Your task to perform on an android device: toggle location history Image 0: 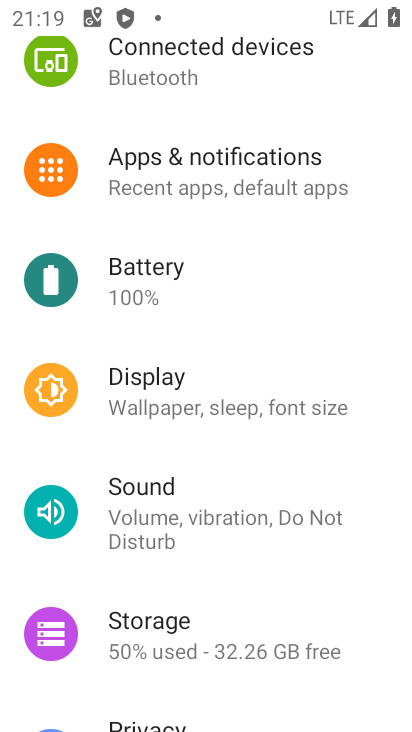
Step 0: press home button
Your task to perform on an android device: toggle location history Image 1: 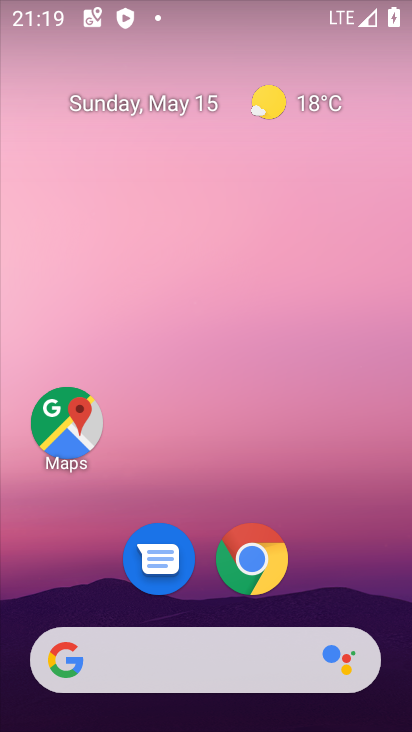
Step 1: drag from (307, 512) to (188, 141)
Your task to perform on an android device: toggle location history Image 2: 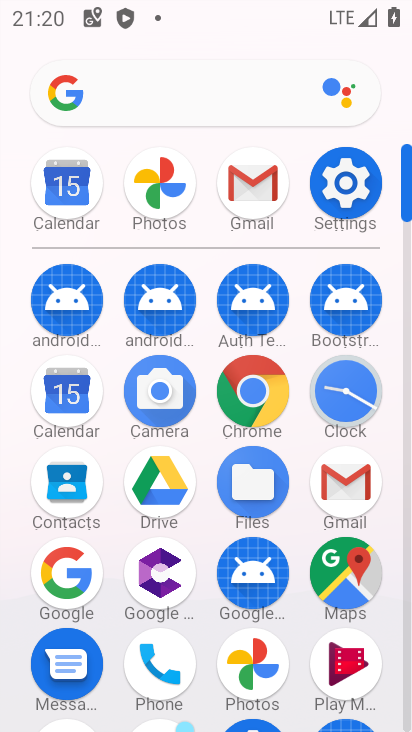
Step 2: click (338, 190)
Your task to perform on an android device: toggle location history Image 3: 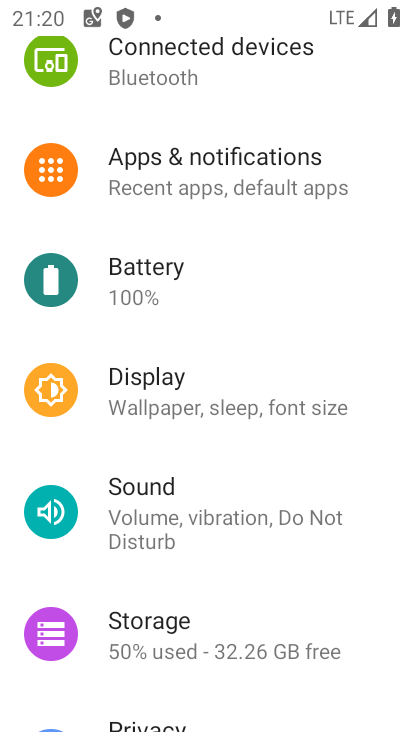
Step 3: drag from (214, 542) to (83, 151)
Your task to perform on an android device: toggle location history Image 4: 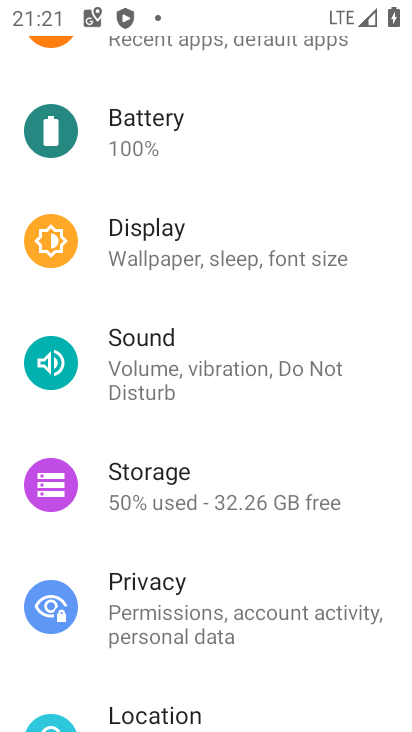
Step 4: drag from (217, 538) to (180, 267)
Your task to perform on an android device: toggle location history Image 5: 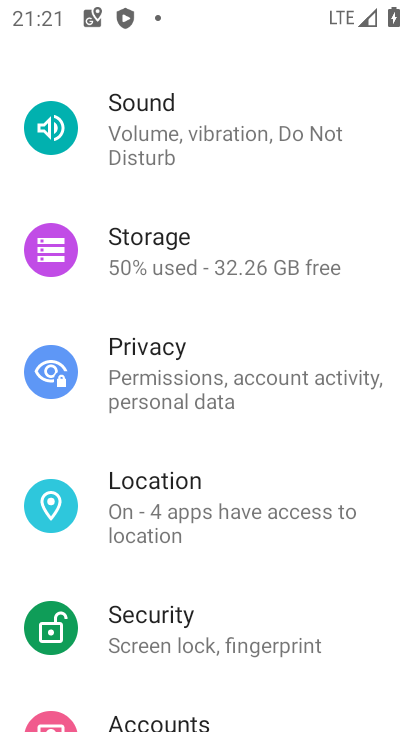
Step 5: click (141, 486)
Your task to perform on an android device: toggle location history Image 6: 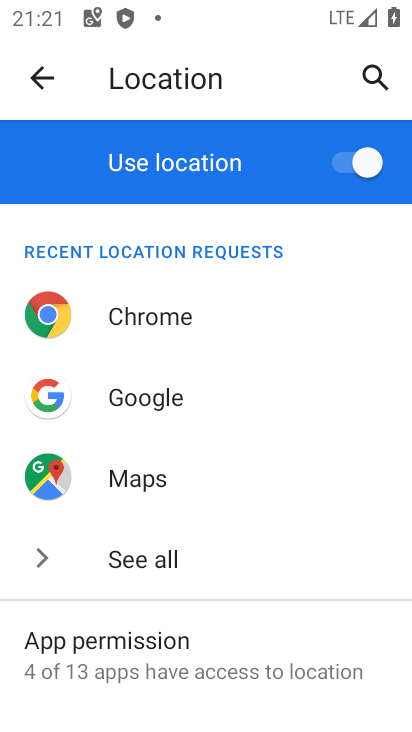
Step 6: drag from (173, 603) to (151, 299)
Your task to perform on an android device: toggle location history Image 7: 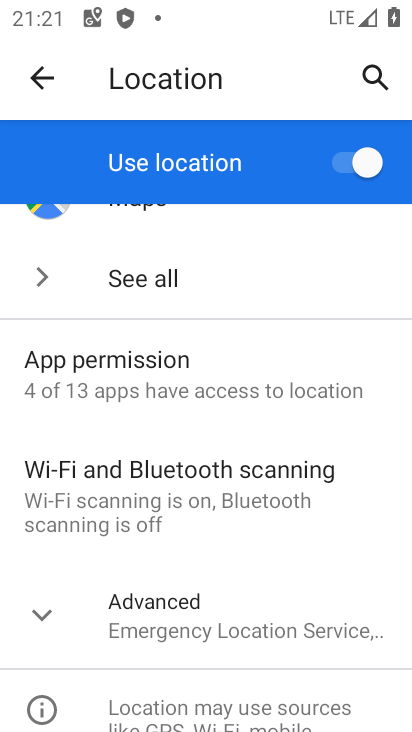
Step 7: click (41, 615)
Your task to perform on an android device: toggle location history Image 8: 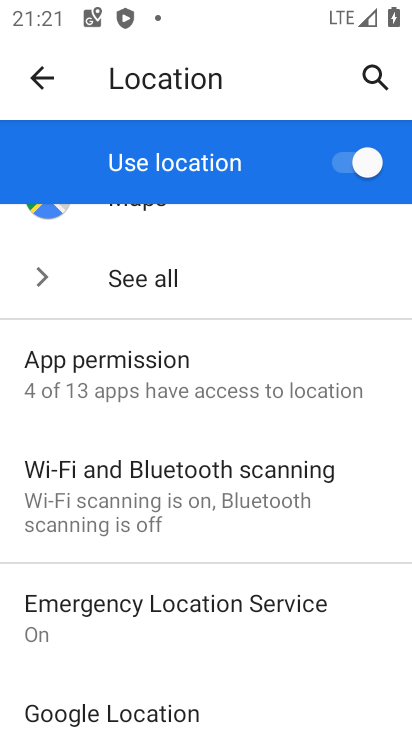
Step 8: drag from (159, 615) to (128, 245)
Your task to perform on an android device: toggle location history Image 9: 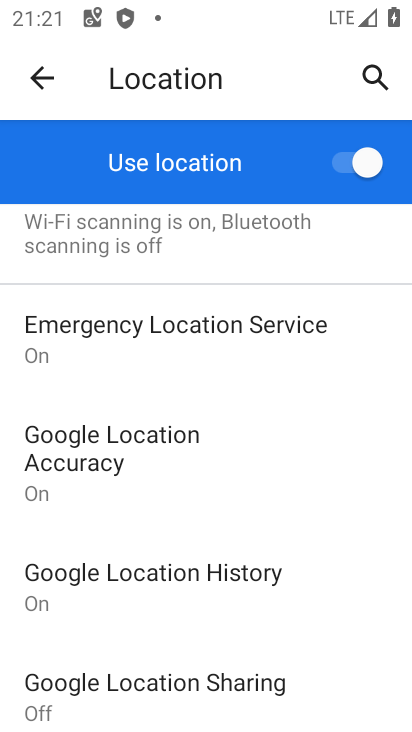
Step 9: click (151, 574)
Your task to perform on an android device: toggle location history Image 10: 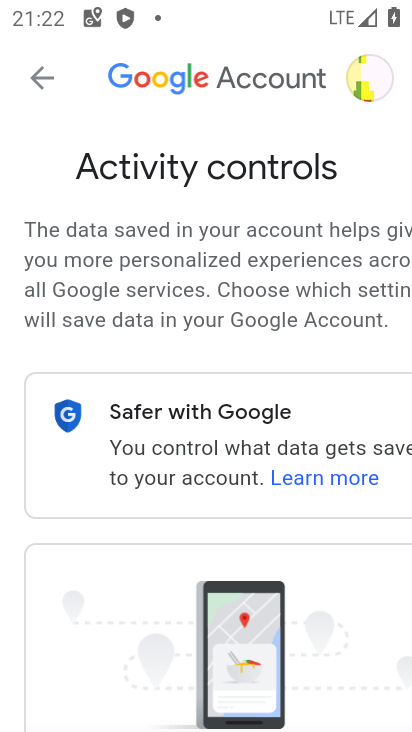
Step 10: drag from (333, 534) to (285, 228)
Your task to perform on an android device: toggle location history Image 11: 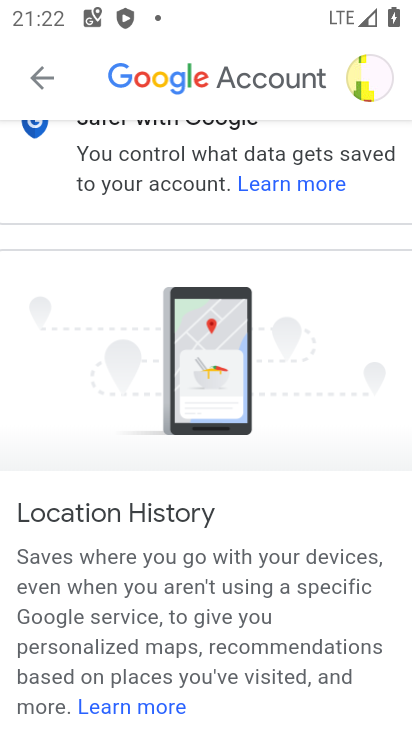
Step 11: drag from (290, 526) to (262, 173)
Your task to perform on an android device: toggle location history Image 12: 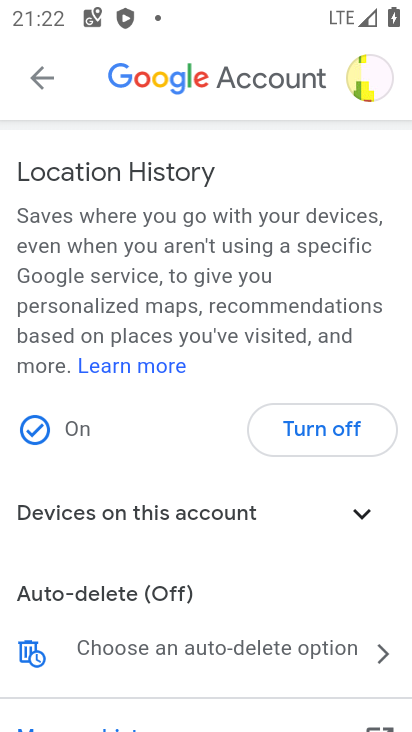
Step 12: click (301, 420)
Your task to perform on an android device: toggle location history Image 13: 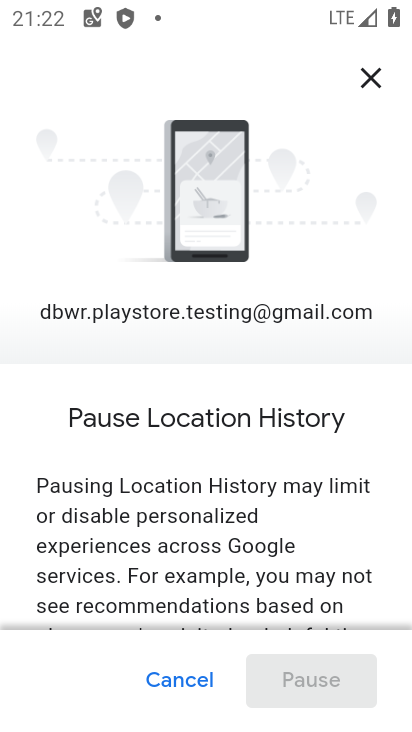
Step 13: drag from (315, 595) to (219, 272)
Your task to perform on an android device: toggle location history Image 14: 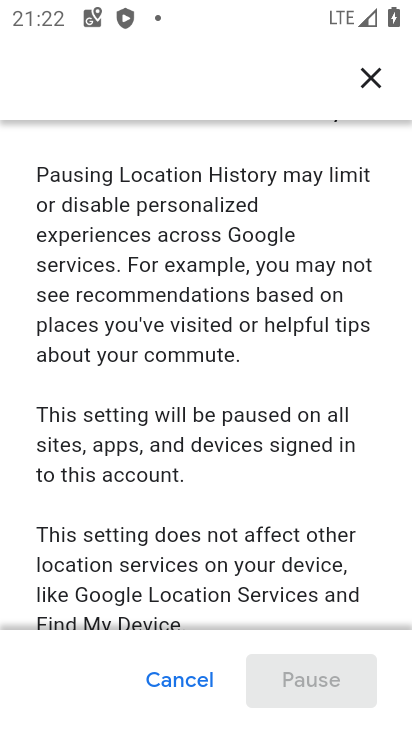
Step 14: drag from (263, 529) to (224, 141)
Your task to perform on an android device: toggle location history Image 15: 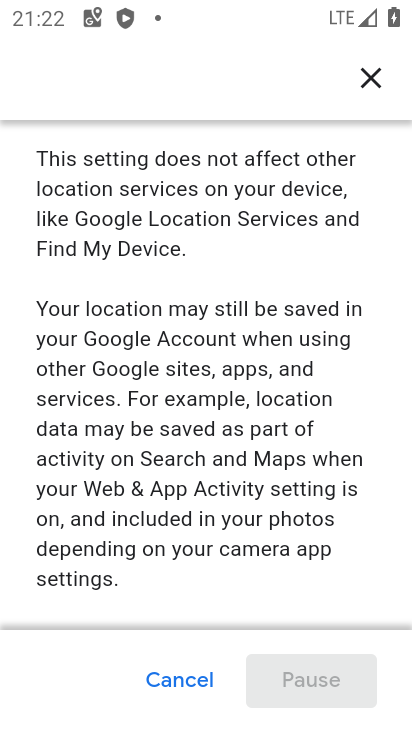
Step 15: drag from (243, 545) to (207, 230)
Your task to perform on an android device: toggle location history Image 16: 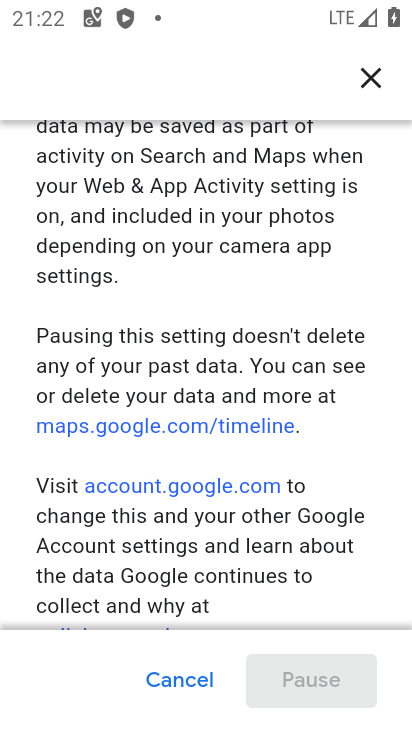
Step 16: drag from (284, 573) to (246, 259)
Your task to perform on an android device: toggle location history Image 17: 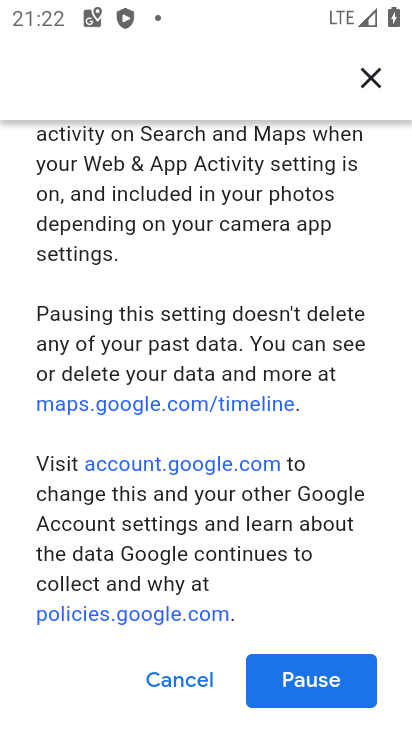
Step 17: click (319, 680)
Your task to perform on an android device: toggle location history Image 18: 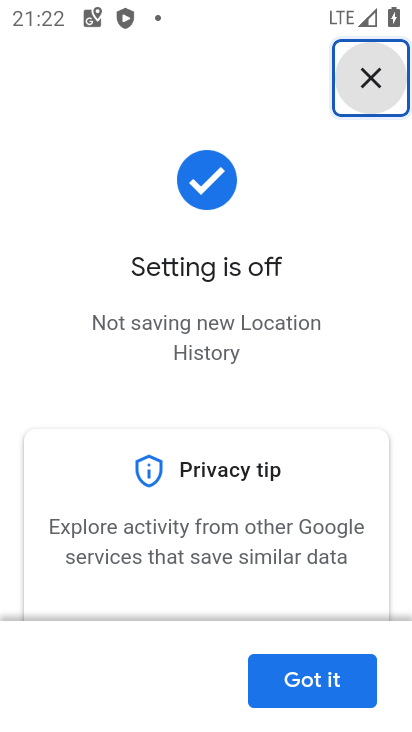
Step 18: click (306, 677)
Your task to perform on an android device: toggle location history Image 19: 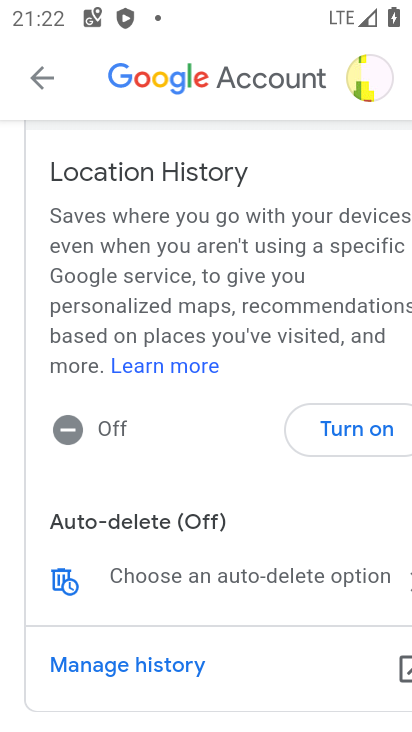
Step 19: task complete